Your task to perform on an android device: Go to Android settings Image 0: 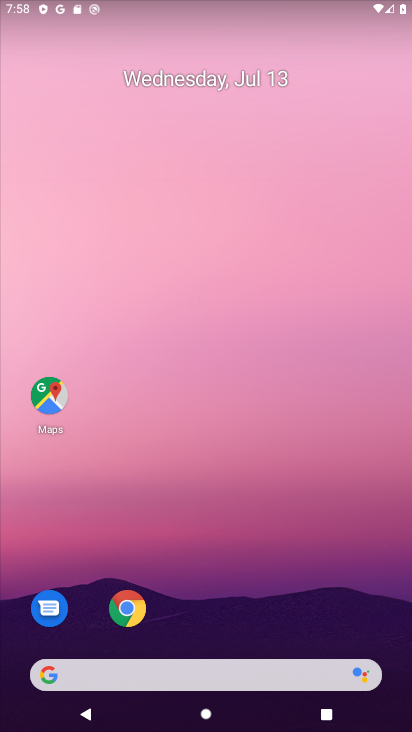
Step 0: drag from (262, 671) to (140, 177)
Your task to perform on an android device: Go to Android settings Image 1: 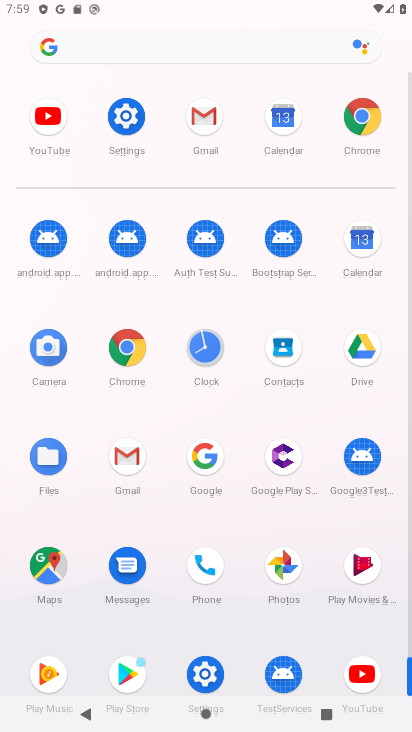
Step 1: click (118, 114)
Your task to perform on an android device: Go to Android settings Image 2: 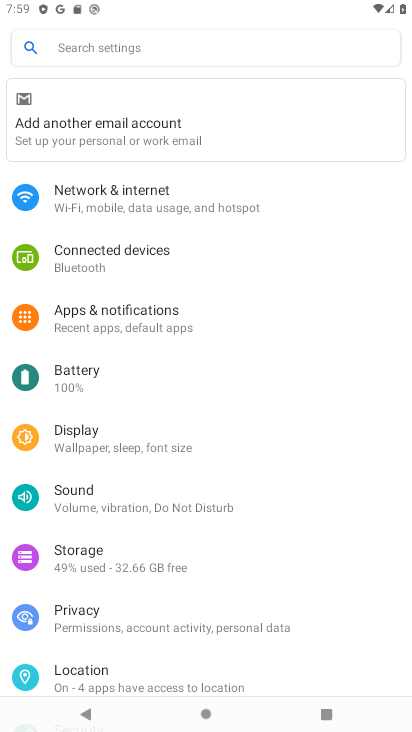
Step 2: drag from (114, 641) to (73, 212)
Your task to perform on an android device: Go to Android settings Image 3: 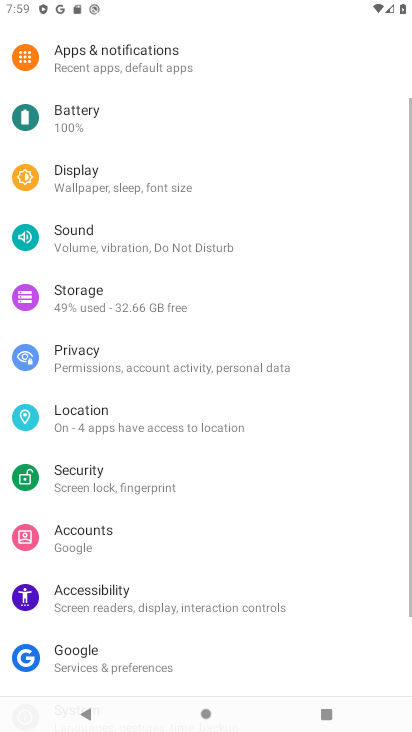
Step 3: drag from (177, 563) to (172, 263)
Your task to perform on an android device: Go to Android settings Image 4: 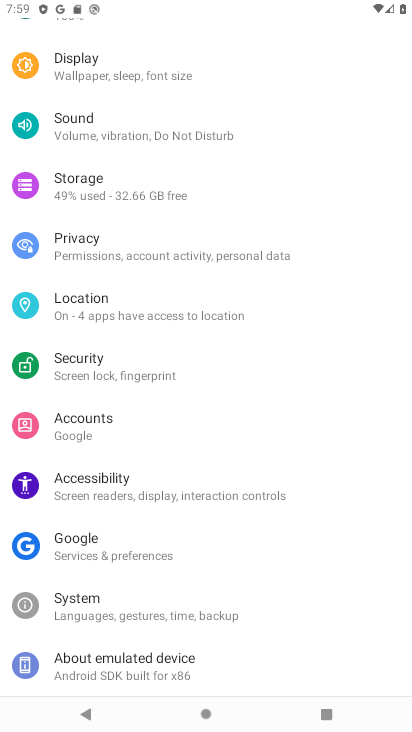
Step 4: drag from (158, 637) to (135, 242)
Your task to perform on an android device: Go to Android settings Image 5: 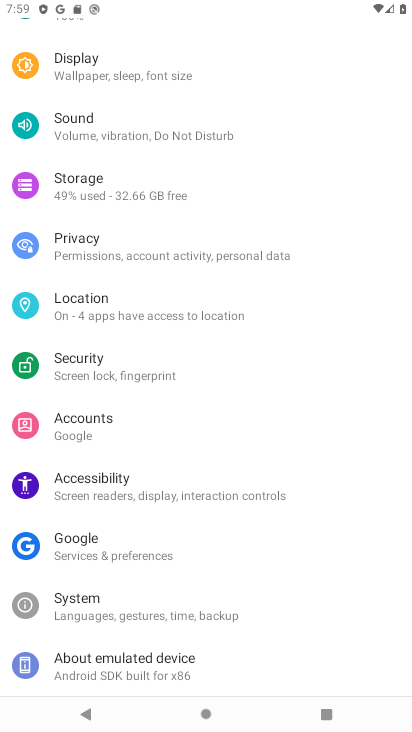
Step 5: click (134, 667)
Your task to perform on an android device: Go to Android settings Image 6: 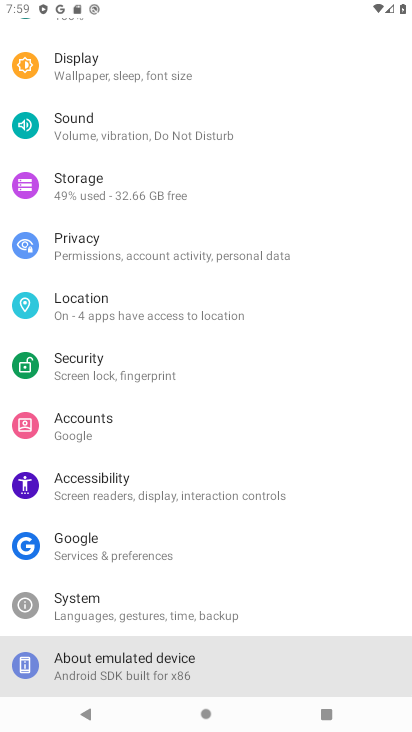
Step 6: click (134, 667)
Your task to perform on an android device: Go to Android settings Image 7: 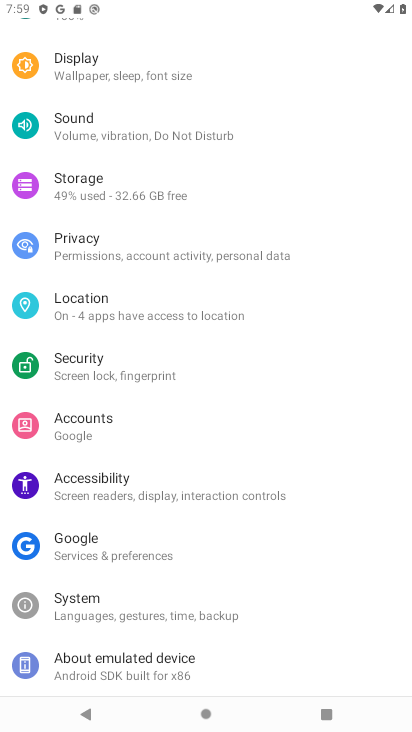
Step 7: click (134, 667)
Your task to perform on an android device: Go to Android settings Image 8: 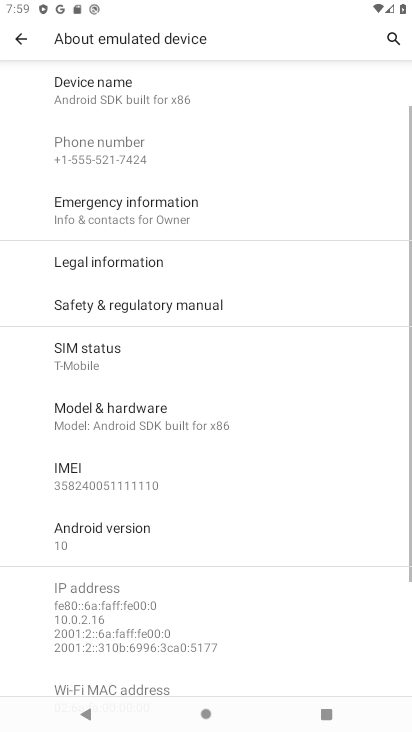
Step 8: task complete